Your task to perform on an android device: turn on the 24-hour format for clock Image 0: 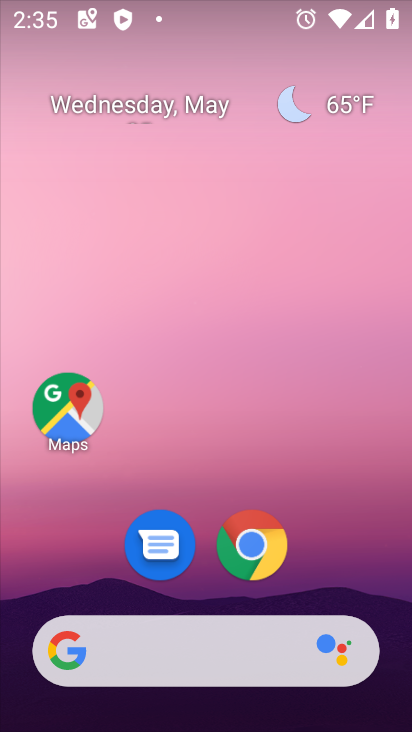
Step 0: drag from (286, 338) to (178, 22)
Your task to perform on an android device: turn on the 24-hour format for clock Image 1: 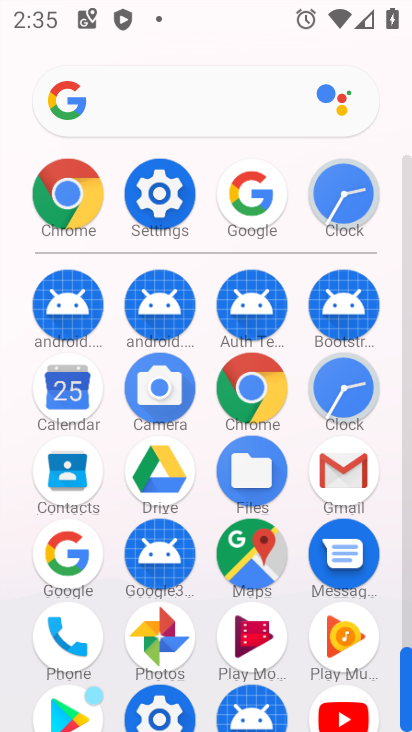
Step 1: click (359, 178)
Your task to perform on an android device: turn on the 24-hour format for clock Image 2: 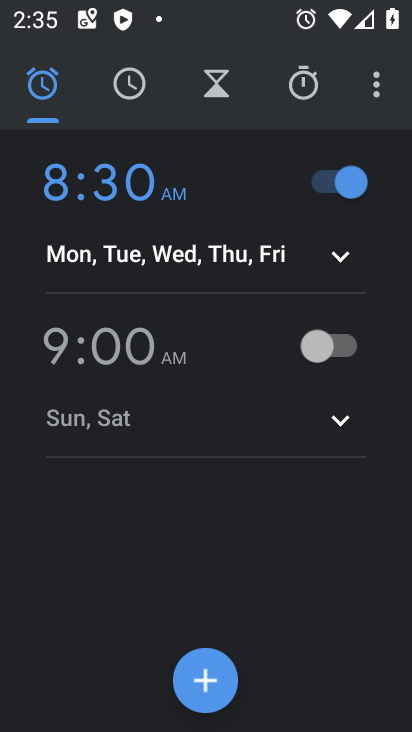
Step 2: click (371, 88)
Your task to perform on an android device: turn on the 24-hour format for clock Image 3: 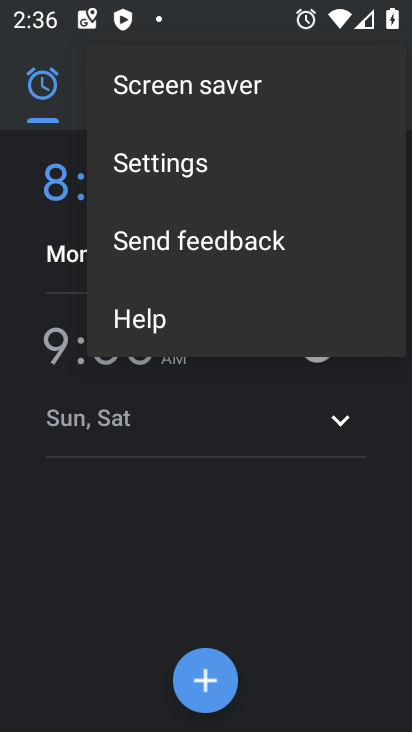
Step 3: click (271, 167)
Your task to perform on an android device: turn on the 24-hour format for clock Image 4: 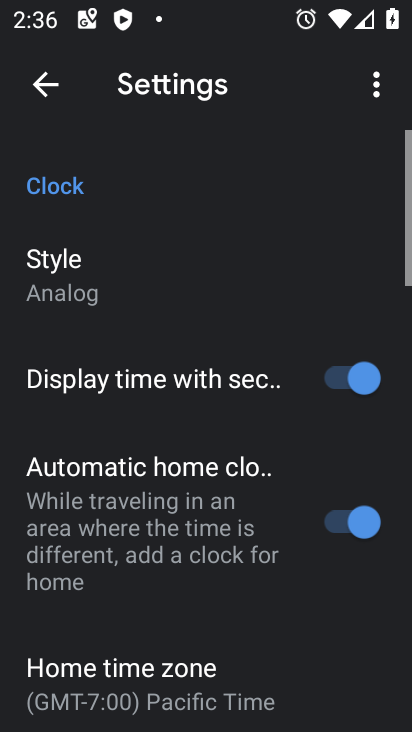
Step 4: drag from (231, 552) to (231, 171)
Your task to perform on an android device: turn on the 24-hour format for clock Image 5: 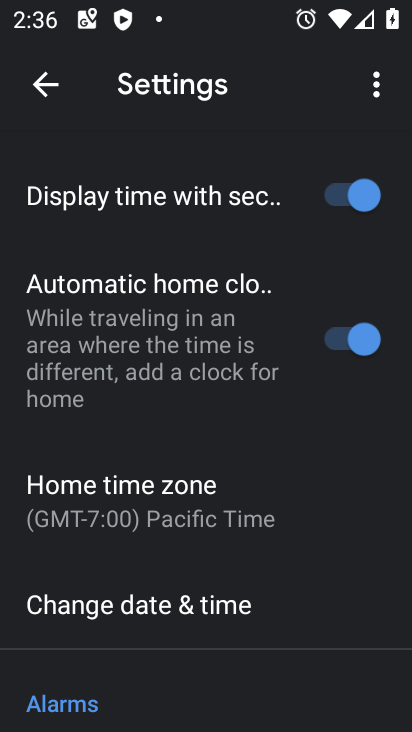
Step 5: click (255, 644)
Your task to perform on an android device: turn on the 24-hour format for clock Image 6: 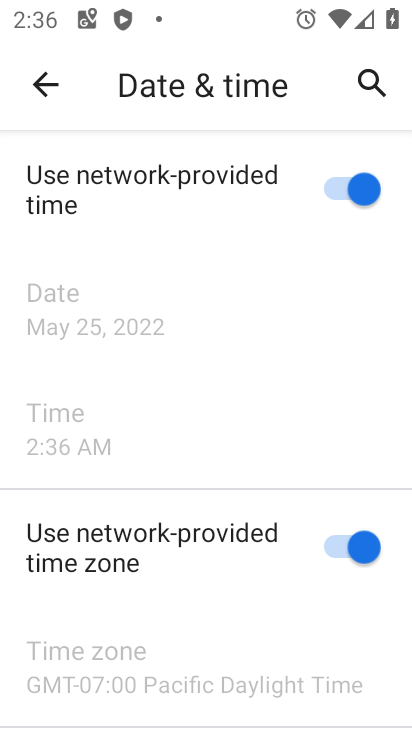
Step 6: drag from (259, 563) to (319, 170)
Your task to perform on an android device: turn on the 24-hour format for clock Image 7: 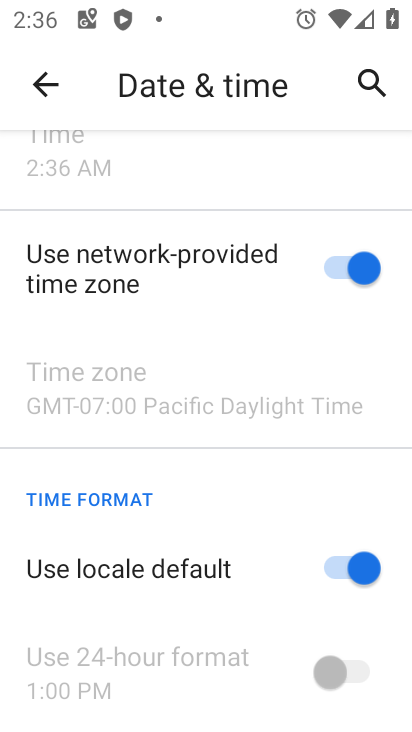
Step 7: click (363, 561)
Your task to perform on an android device: turn on the 24-hour format for clock Image 8: 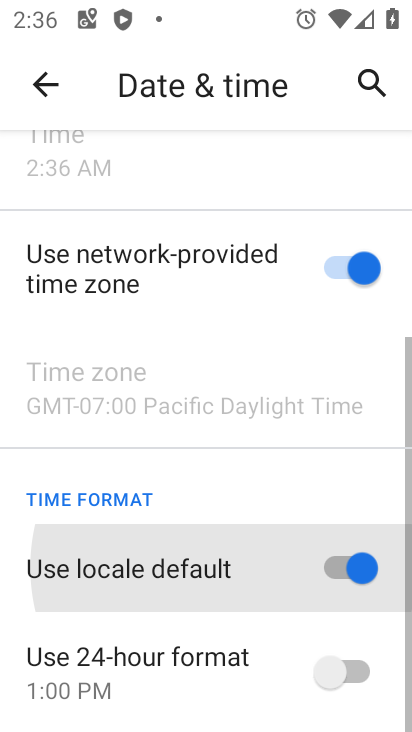
Step 8: click (349, 670)
Your task to perform on an android device: turn on the 24-hour format for clock Image 9: 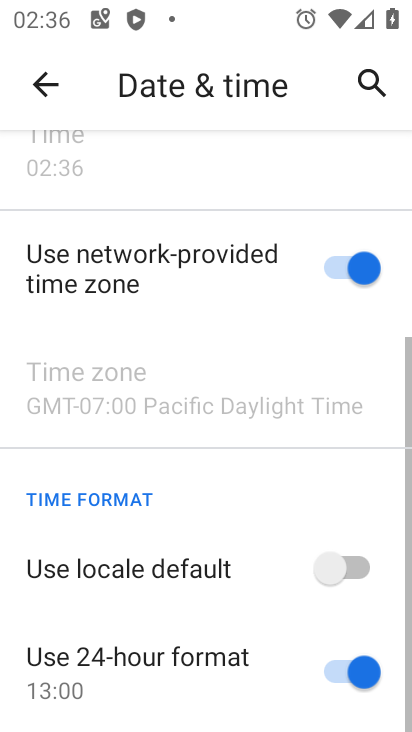
Step 9: task complete